Your task to perform on an android device: Search for pizza restaurants on Maps Image 0: 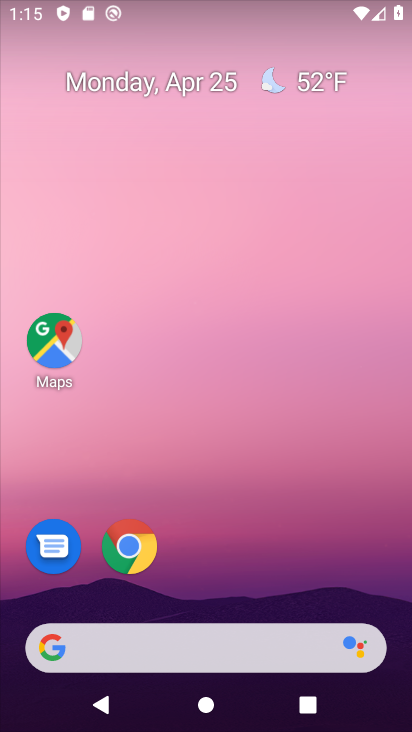
Step 0: click (54, 342)
Your task to perform on an android device: Search for pizza restaurants on Maps Image 1: 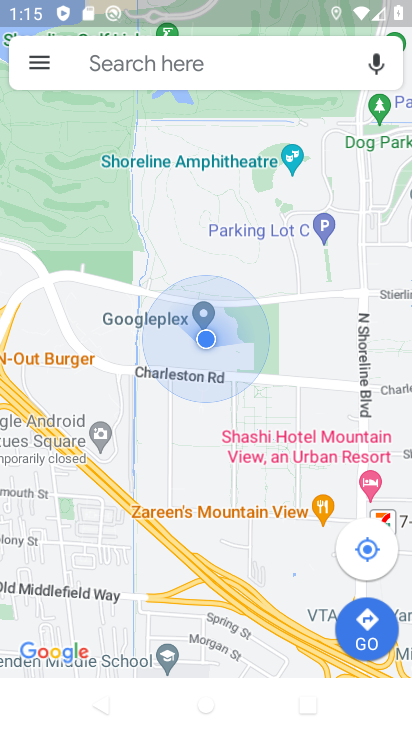
Step 1: click (210, 70)
Your task to perform on an android device: Search for pizza restaurants on Maps Image 2: 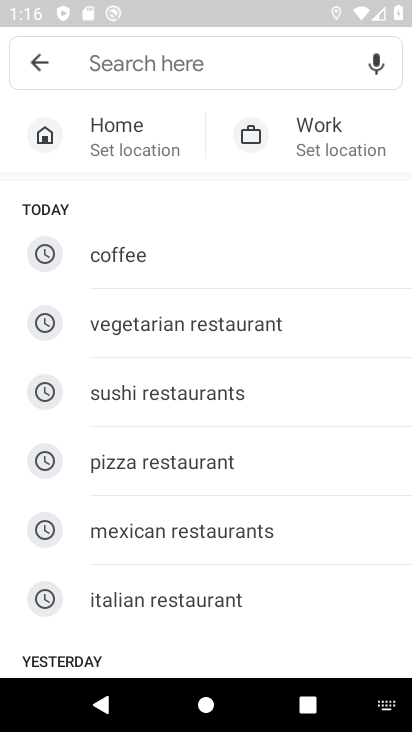
Step 2: click (248, 448)
Your task to perform on an android device: Search for pizza restaurants on Maps Image 3: 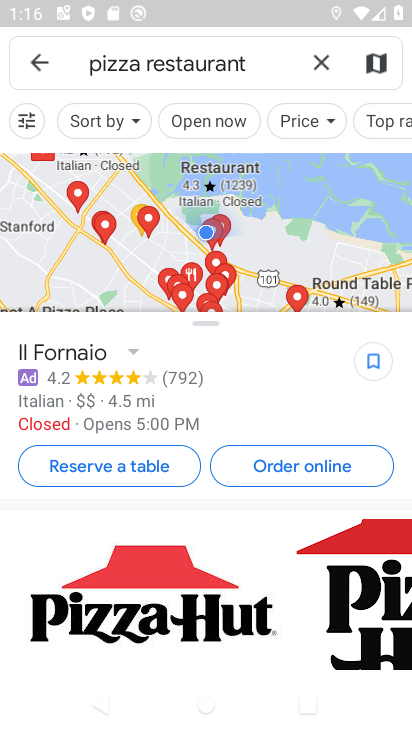
Step 3: task complete